Your task to perform on an android device: toggle sleep mode Image 0: 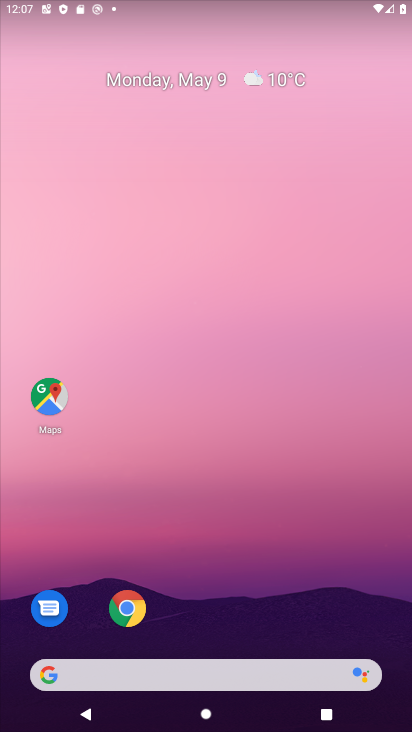
Step 0: drag from (210, 567) to (2, 7)
Your task to perform on an android device: toggle sleep mode Image 1: 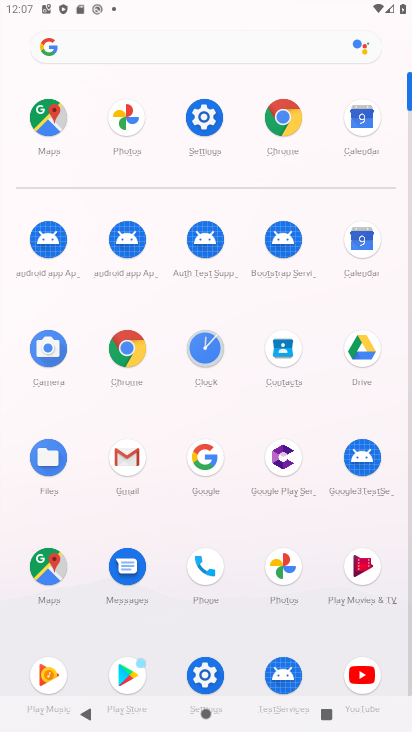
Step 1: click (204, 137)
Your task to perform on an android device: toggle sleep mode Image 2: 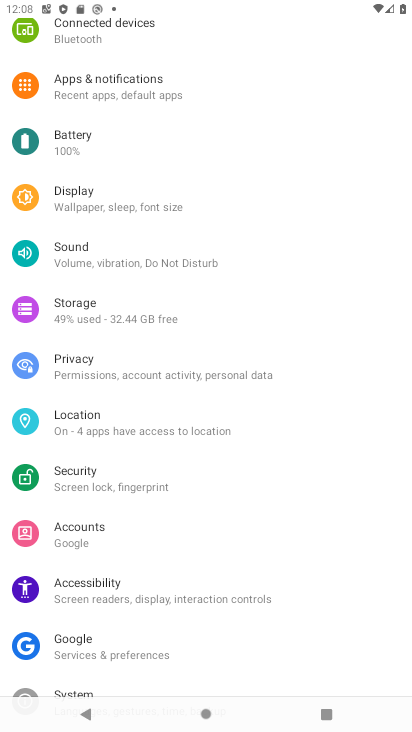
Step 2: click (158, 215)
Your task to perform on an android device: toggle sleep mode Image 3: 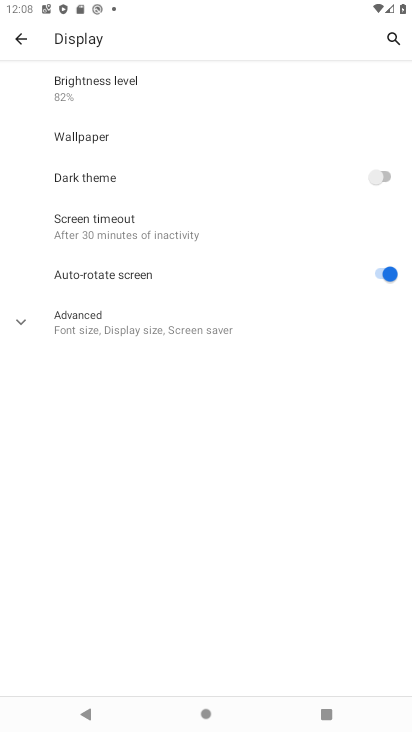
Step 3: click (385, 183)
Your task to perform on an android device: toggle sleep mode Image 4: 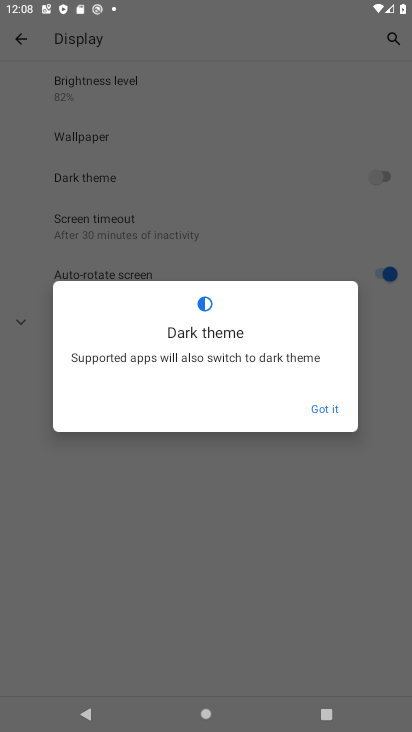
Step 4: click (310, 413)
Your task to perform on an android device: toggle sleep mode Image 5: 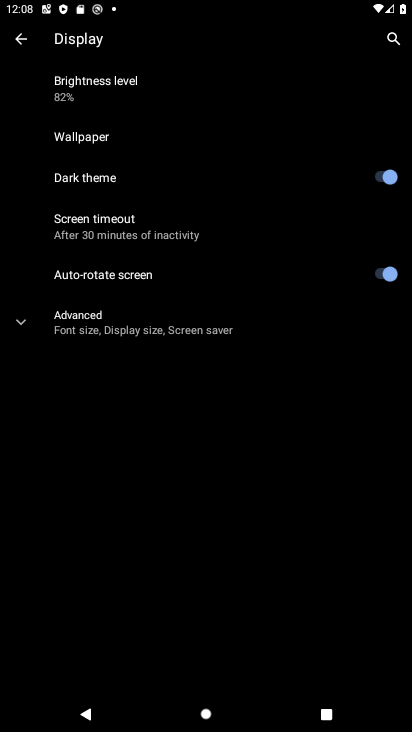
Step 5: click (230, 220)
Your task to perform on an android device: toggle sleep mode Image 6: 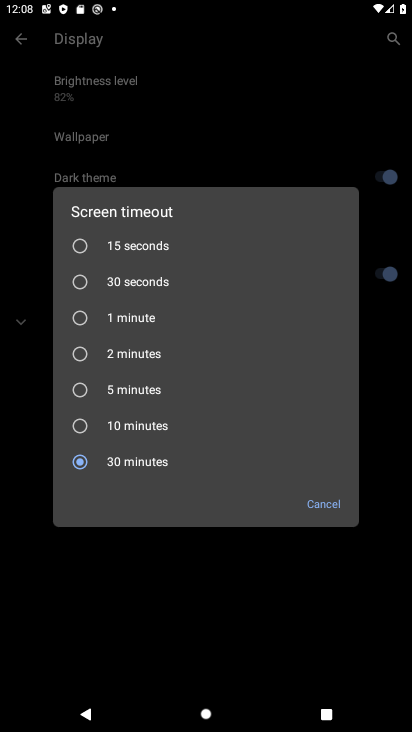
Step 6: click (194, 242)
Your task to perform on an android device: toggle sleep mode Image 7: 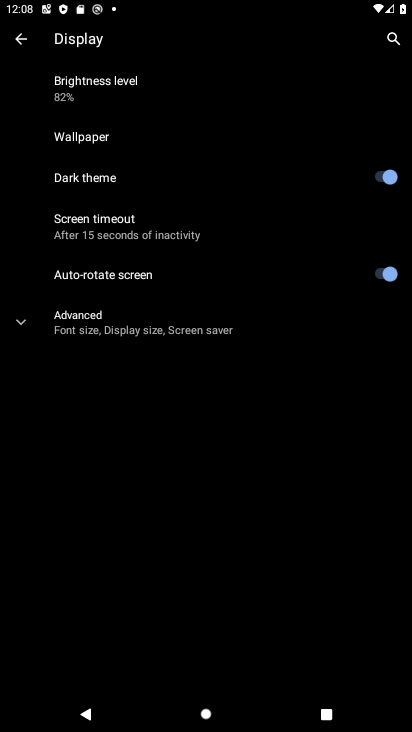
Step 7: task complete